Your task to perform on an android device: change your default location settings in chrome Image 0: 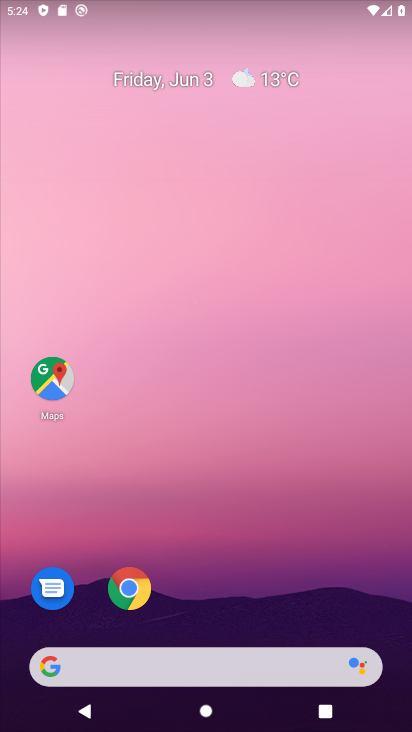
Step 0: drag from (271, 600) to (261, 132)
Your task to perform on an android device: change your default location settings in chrome Image 1: 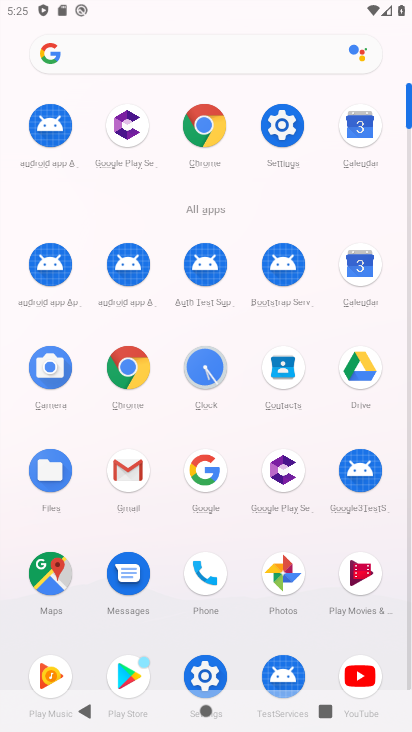
Step 1: click (143, 377)
Your task to perform on an android device: change your default location settings in chrome Image 2: 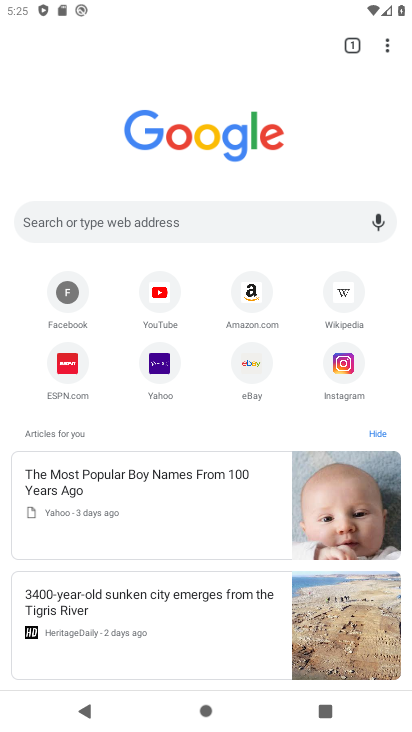
Step 2: click (389, 51)
Your task to perform on an android device: change your default location settings in chrome Image 3: 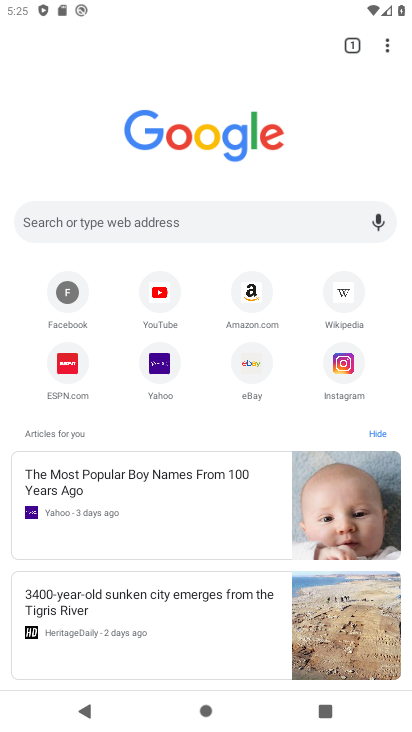
Step 3: click (384, 48)
Your task to perform on an android device: change your default location settings in chrome Image 4: 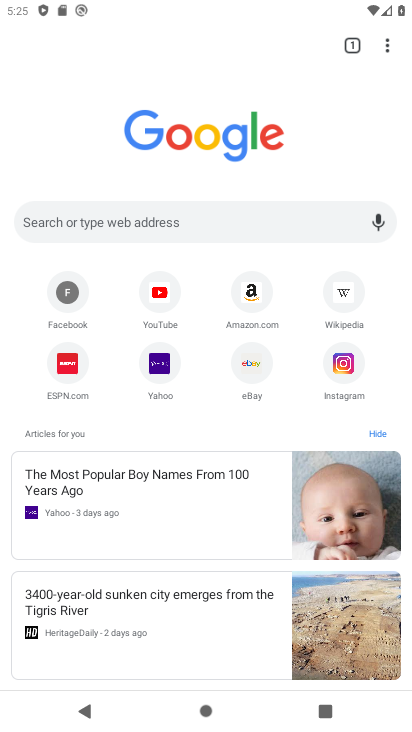
Step 4: click (389, 49)
Your task to perform on an android device: change your default location settings in chrome Image 5: 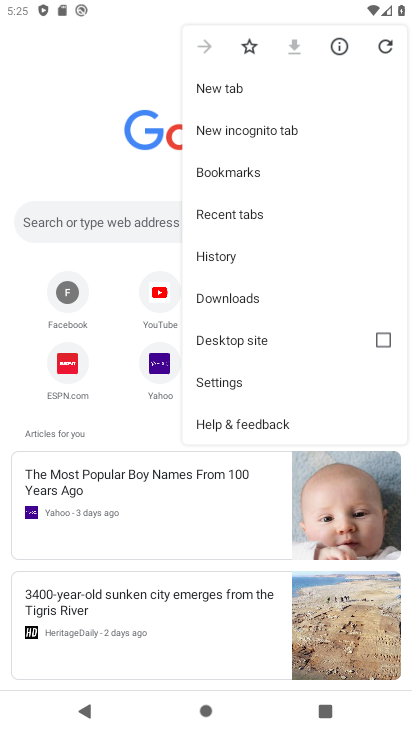
Step 5: click (249, 381)
Your task to perform on an android device: change your default location settings in chrome Image 6: 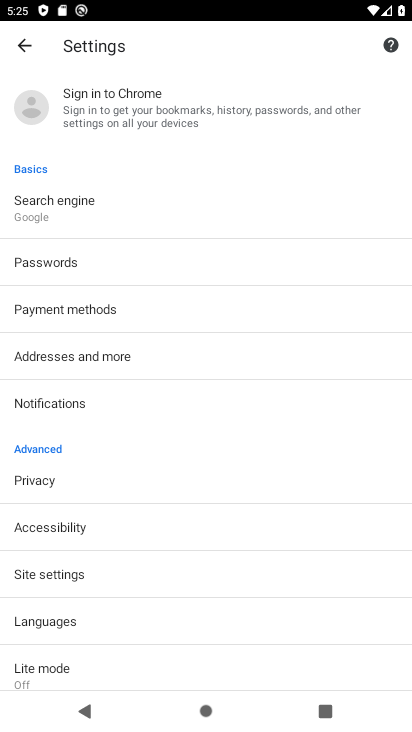
Step 6: click (91, 570)
Your task to perform on an android device: change your default location settings in chrome Image 7: 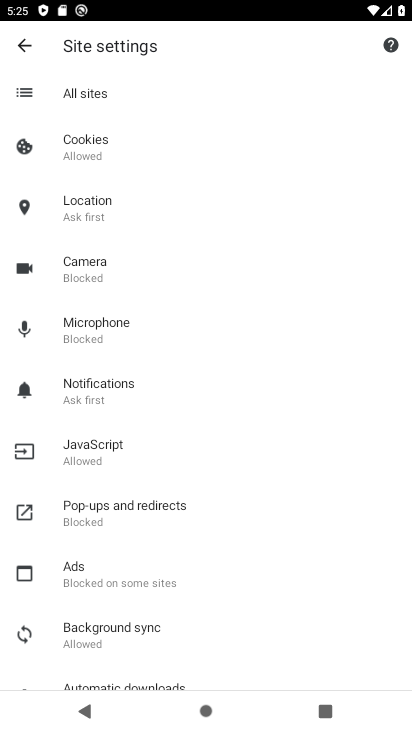
Step 7: click (122, 221)
Your task to perform on an android device: change your default location settings in chrome Image 8: 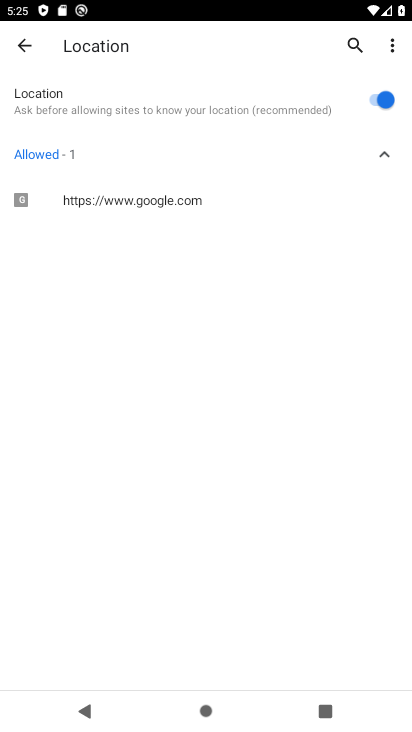
Step 8: click (378, 104)
Your task to perform on an android device: change your default location settings in chrome Image 9: 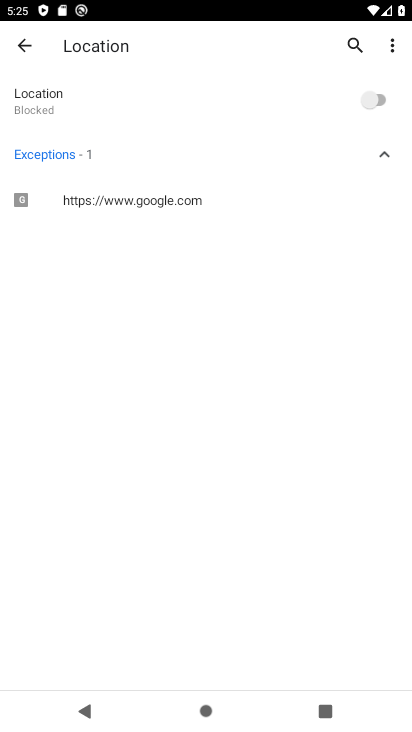
Step 9: task complete